Your task to perform on an android device: delete the emails in spam in the gmail app Image 0: 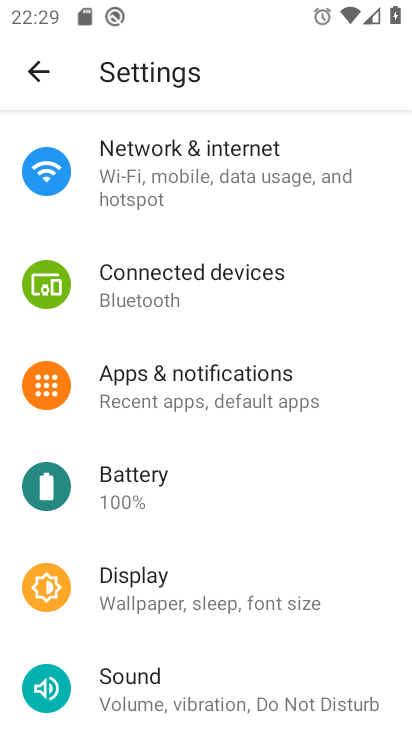
Step 0: press home button
Your task to perform on an android device: delete the emails in spam in the gmail app Image 1: 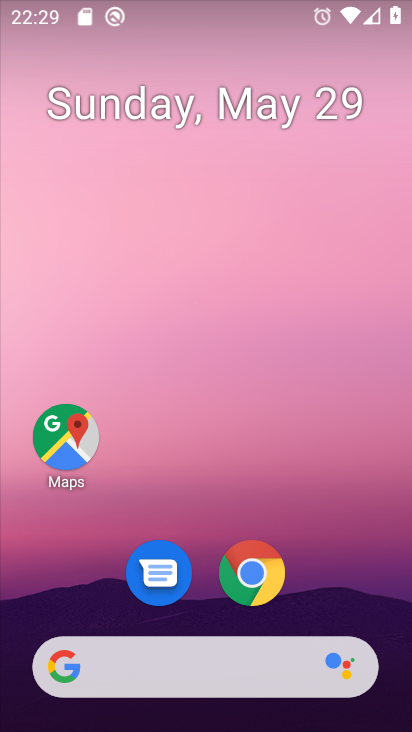
Step 1: drag from (201, 463) to (260, 2)
Your task to perform on an android device: delete the emails in spam in the gmail app Image 2: 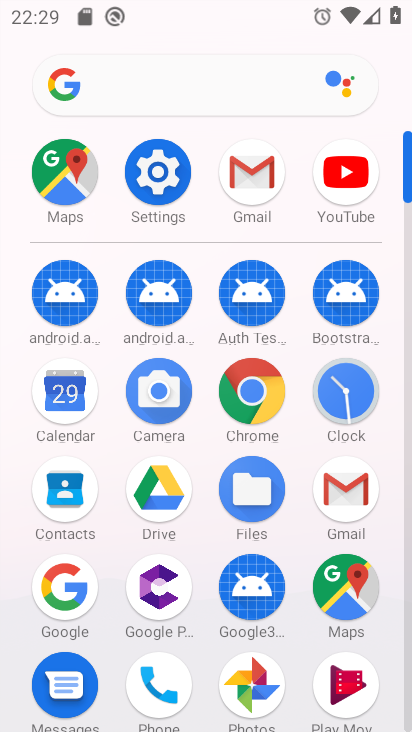
Step 2: click (252, 182)
Your task to perform on an android device: delete the emails in spam in the gmail app Image 3: 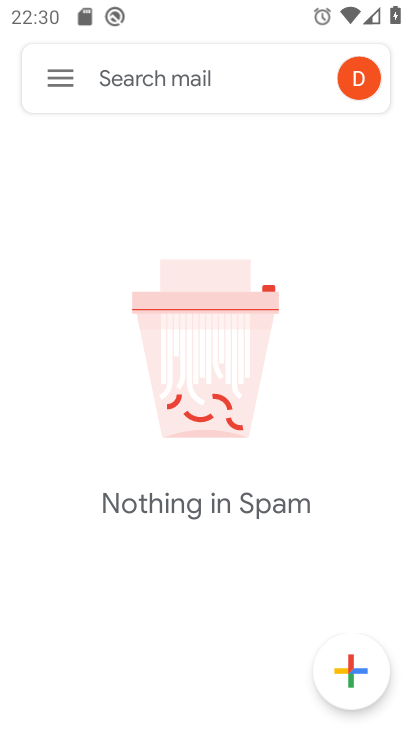
Step 3: click (61, 83)
Your task to perform on an android device: delete the emails in spam in the gmail app Image 4: 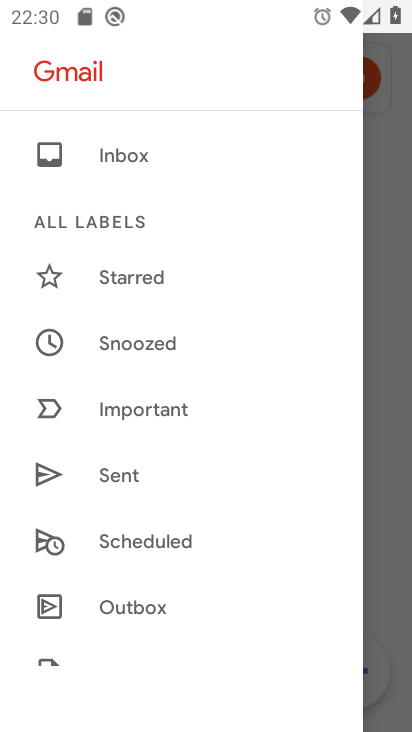
Step 4: drag from (205, 552) to (221, 112)
Your task to perform on an android device: delete the emails in spam in the gmail app Image 5: 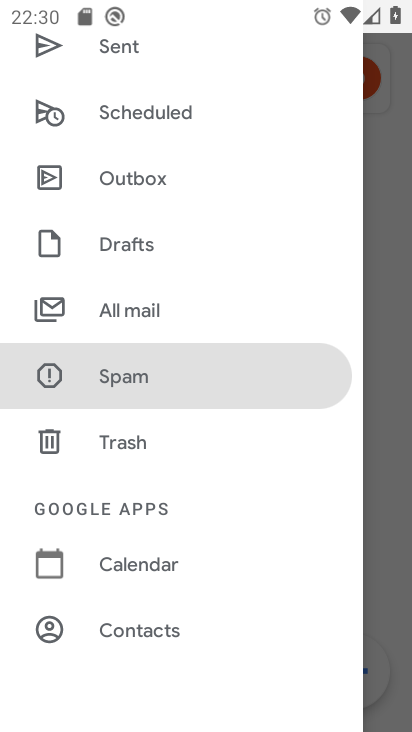
Step 5: click (182, 304)
Your task to perform on an android device: delete the emails in spam in the gmail app Image 6: 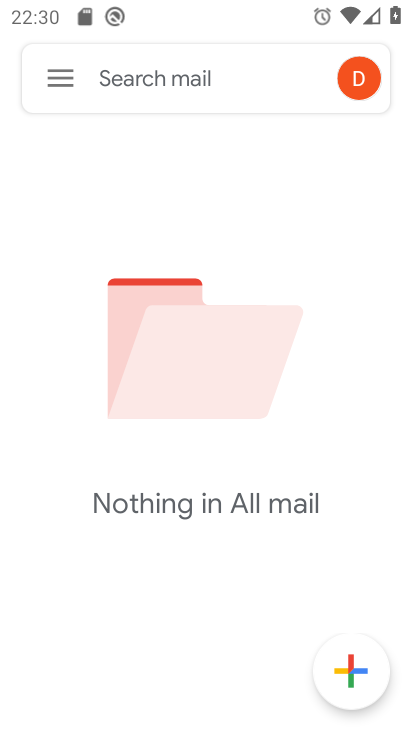
Step 6: click (62, 74)
Your task to perform on an android device: delete the emails in spam in the gmail app Image 7: 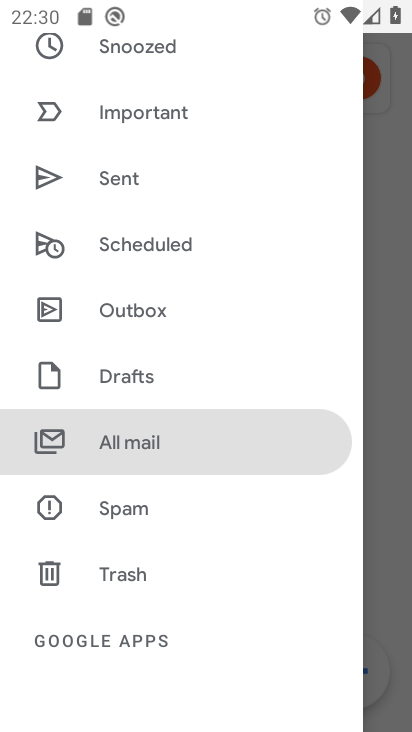
Step 7: click (150, 497)
Your task to perform on an android device: delete the emails in spam in the gmail app Image 8: 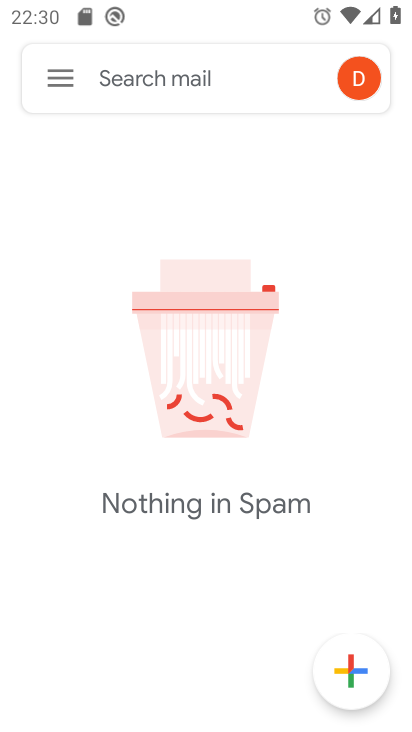
Step 8: task complete